Your task to perform on an android device: Open Google Maps Image 0: 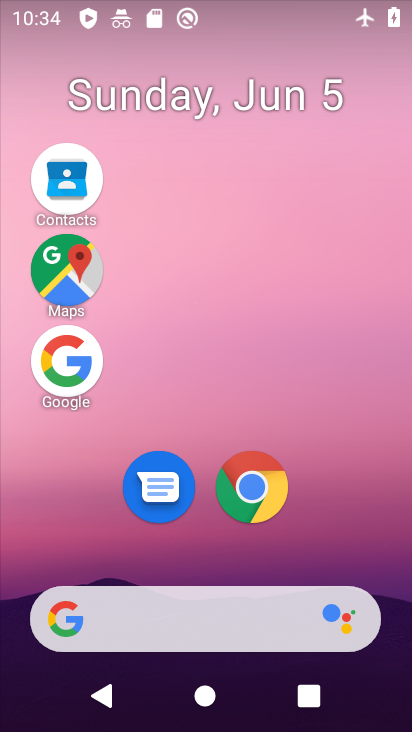
Step 0: drag from (240, 331) to (238, 49)
Your task to perform on an android device: Open Google Maps Image 1: 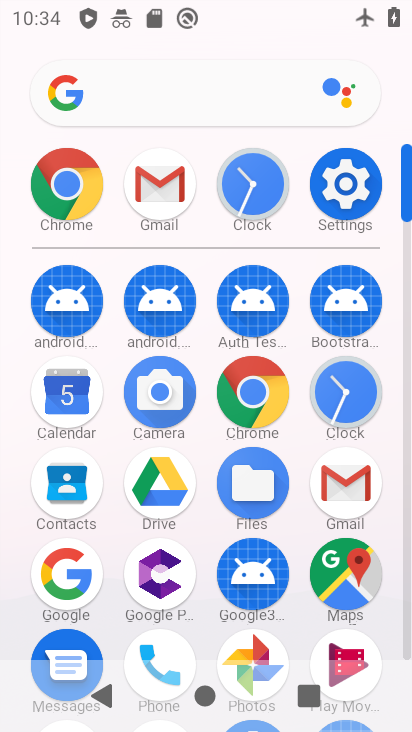
Step 1: click (342, 589)
Your task to perform on an android device: Open Google Maps Image 2: 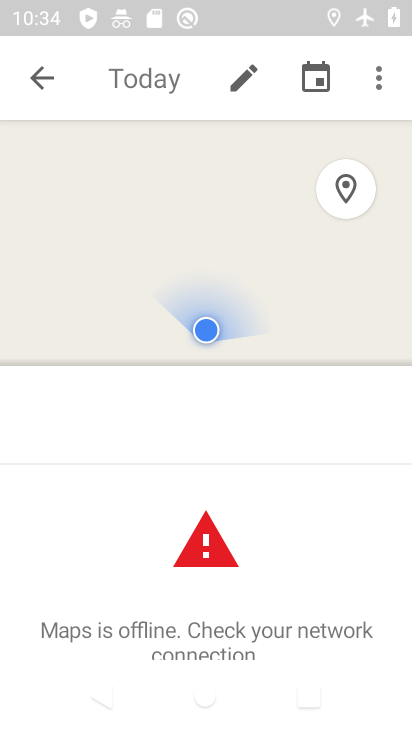
Step 2: task complete